Your task to perform on an android device: turn off smart reply in the gmail app Image 0: 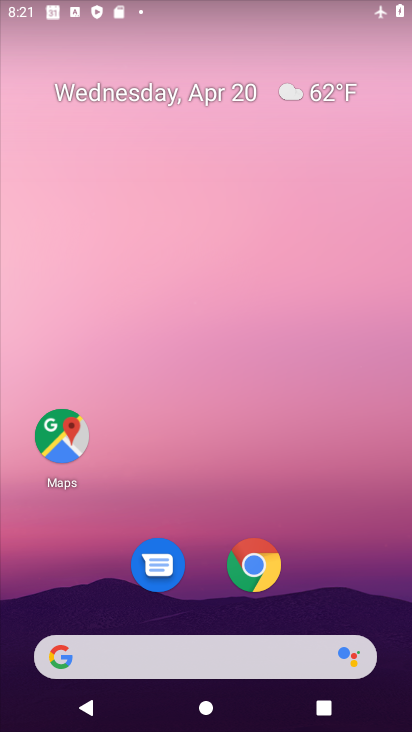
Step 0: drag from (336, 594) to (330, 20)
Your task to perform on an android device: turn off smart reply in the gmail app Image 1: 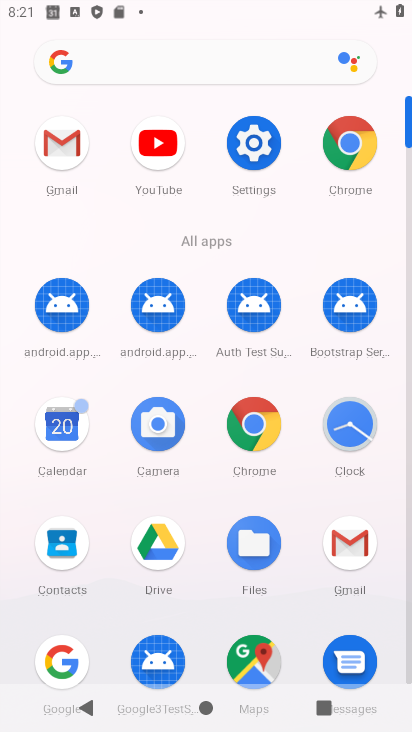
Step 1: click (65, 157)
Your task to perform on an android device: turn off smart reply in the gmail app Image 2: 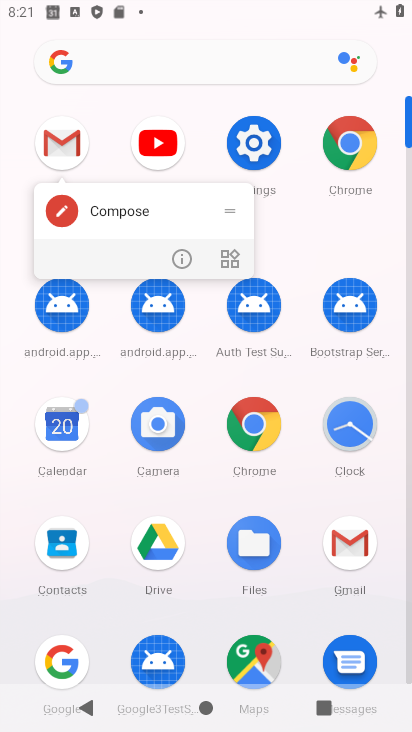
Step 2: click (65, 157)
Your task to perform on an android device: turn off smart reply in the gmail app Image 3: 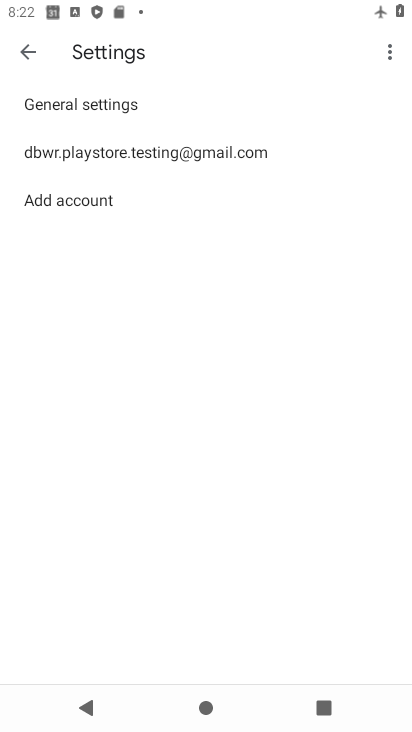
Step 3: click (65, 157)
Your task to perform on an android device: turn off smart reply in the gmail app Image 4: 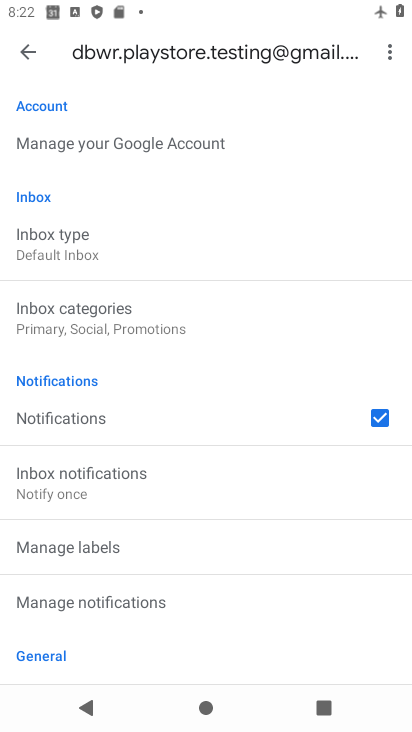
Step 4: drag from (139, 524) to (120, 166)
Your task to perform on an android device: turn off smart reply in the gmail app Image 5: 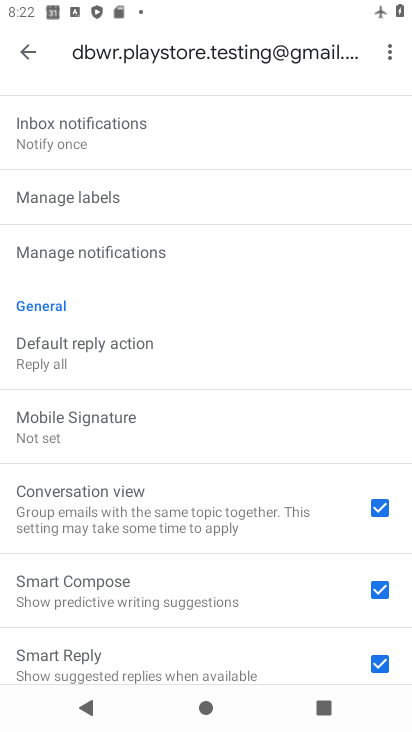
Step 5: drag from (166, 284) to (182, 608)
Your task to perform on an android device: turn off smart reply in the gmail app Image 6: 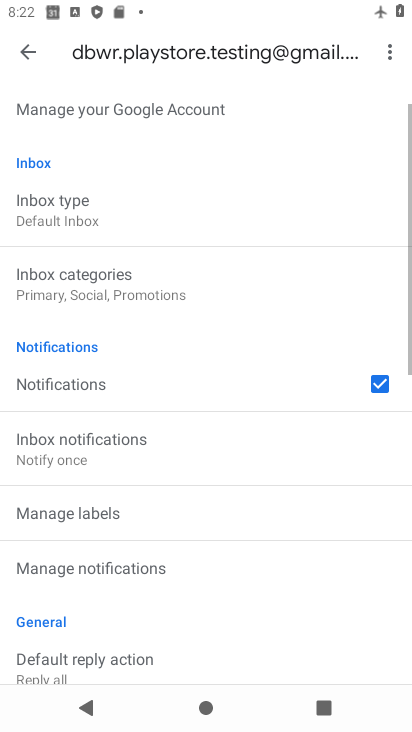
Step 6: drag from (186, 608) to (169, 212)
Your task to perform on an android device: turn off smart reply in the gmail app Image 7: 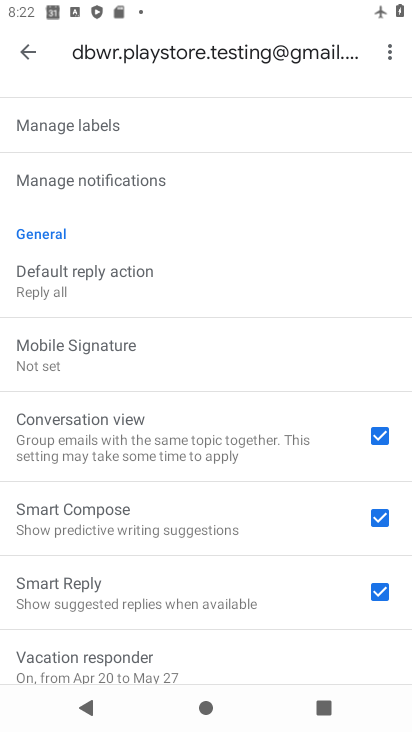
Step 7: drag from (206, 588) to (223, 363)
Your task to perform on an android device: turn off smart reply in the gmail app Image 8: 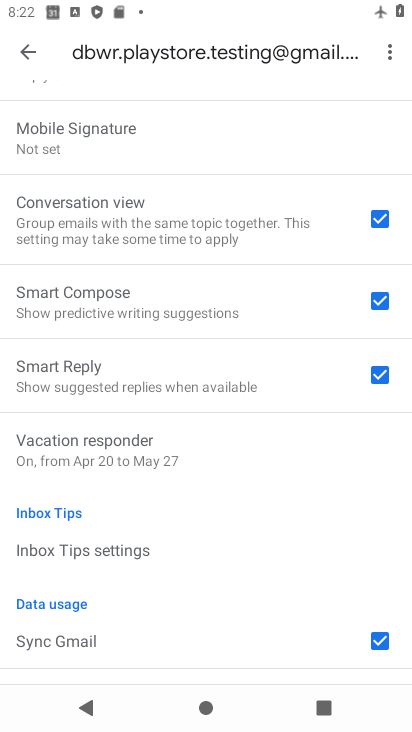
Step 8: click (380, 381)
Your task to perform on an android device: turn off smart reply in the gmail app Image 9: 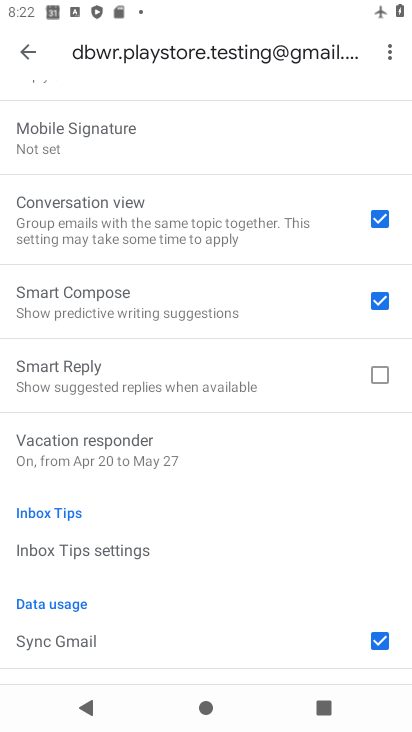
Step 9: task complete